Your task to perform on an android device: turn off javascript in the chrome app Image 0: 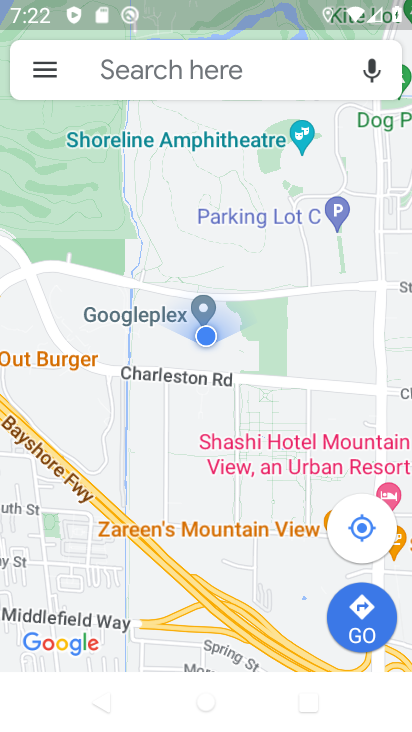
Step 0: press home button
Your task to perform on an android device: turn off javascript in the chrome app Image 1: 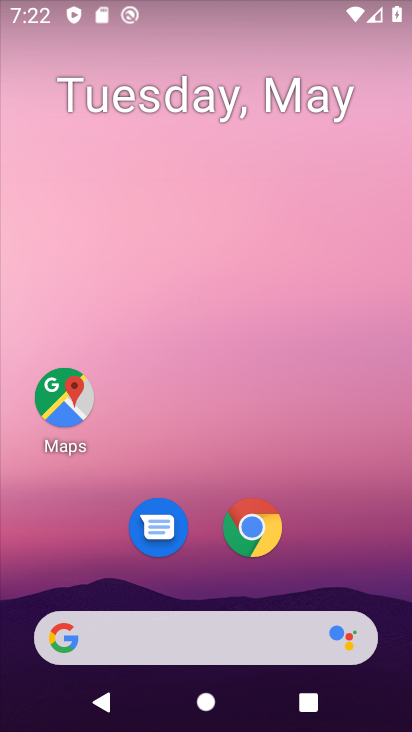
Step 1: click (254, 524)
Your task to perform on an android device: turn off javascript in the chrome app Image 2: 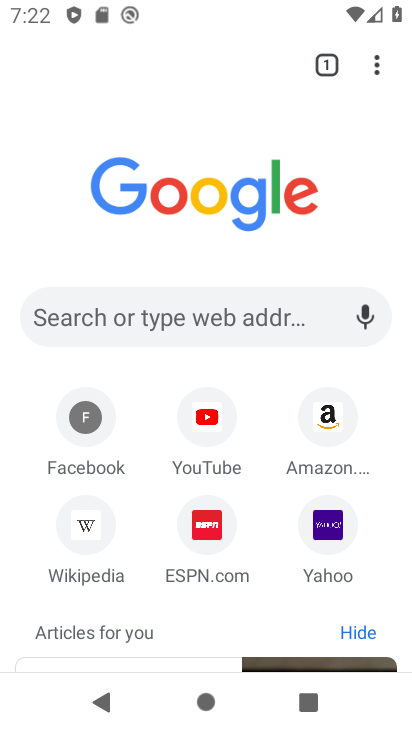
Step 2: click (380, 61)
Your task to perform on an android device: turn off javascript in the chrome app Image 3: 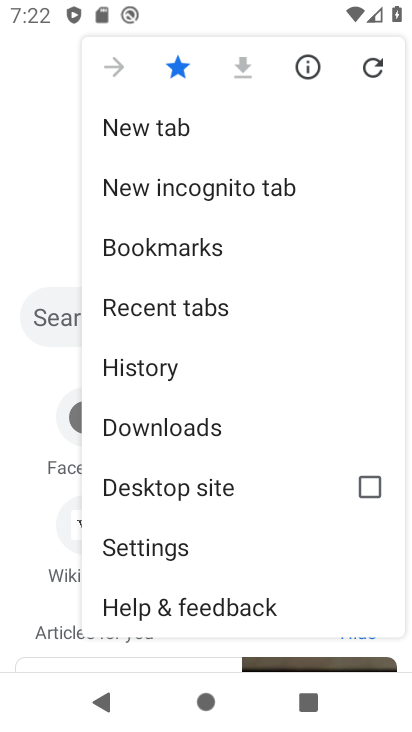
Step 3: click (170, 552)
Your task to perform on an android device: turn off javascript in the chrome app Image 4: 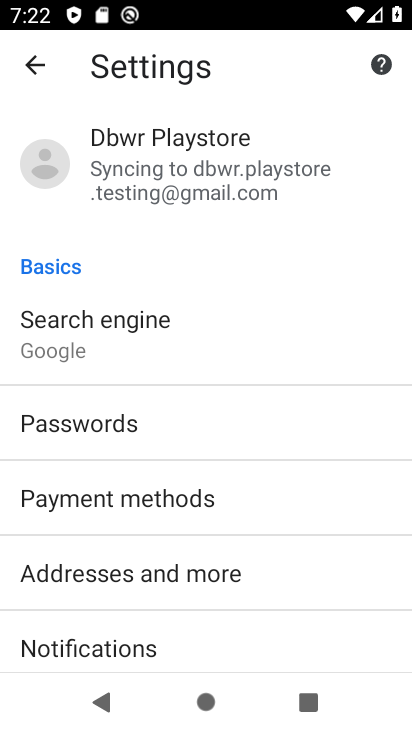
Step 4: drag from (103, 554) to (257, 327)
Your task to perform on an android device: turn off javascript in the chrome app Image 5: 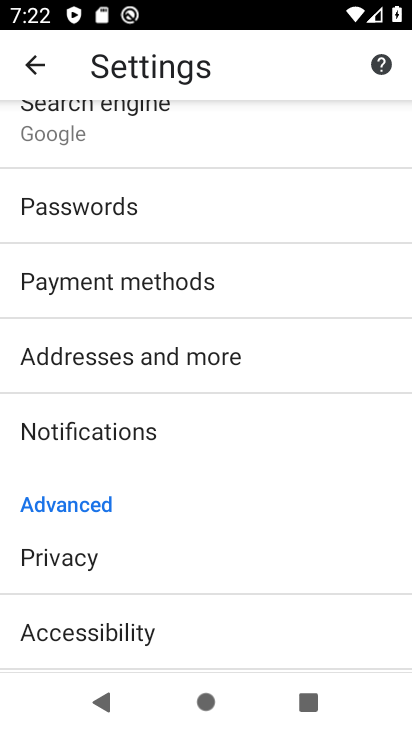
Step 5: drag from (145, 566) to (299, 327)
Your task to perform on an android device: turn off javascript in the chrome app Image 6: 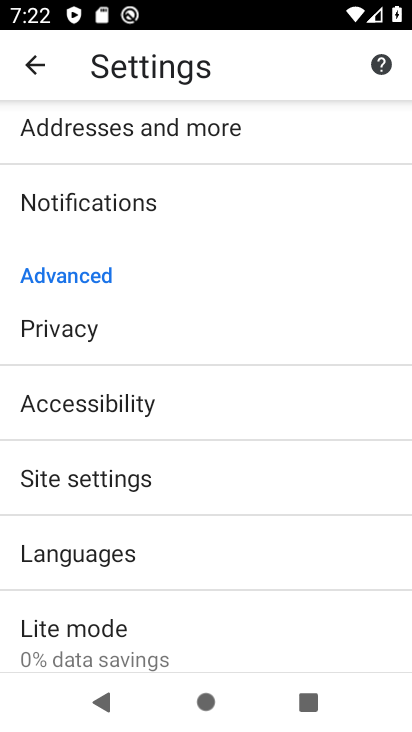
Step 6: click (100, 481)
Your task to perform on an android device: turn off javascript in the chrome app Image 7: 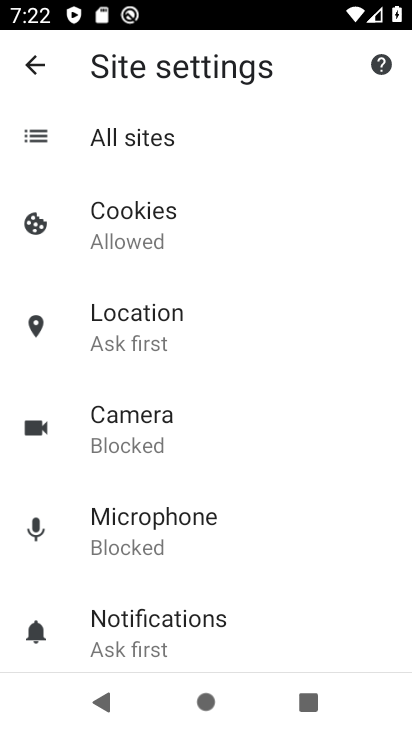
Step 7: drag from (191, 581) to (281, 391)
Your task to perform on an android device: turn off javascript in the chrome app Image 8: 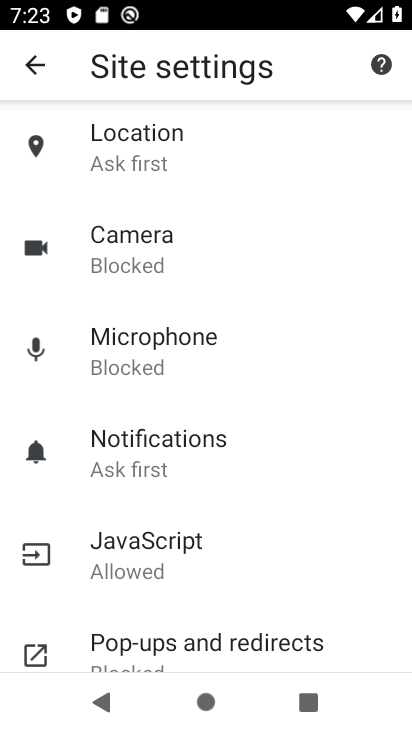
Step 8: click (161, 539)
Your task to perform on an android device: turn off javascript in the chrome app Image 9: 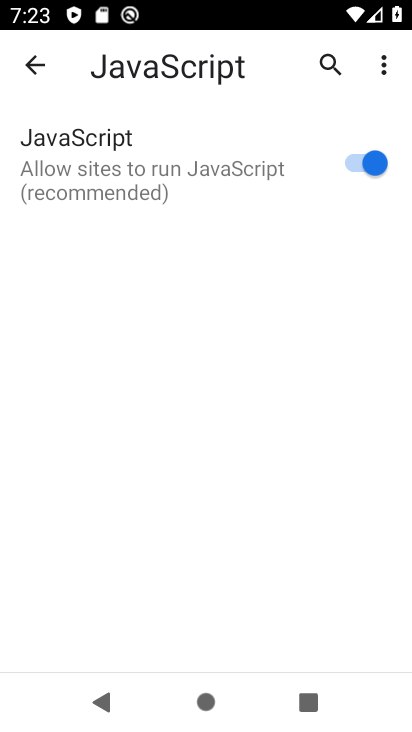
Step 9: click (351, 161)
Your task to perform on an android device: turn off javascript in the chrome app Image 10: 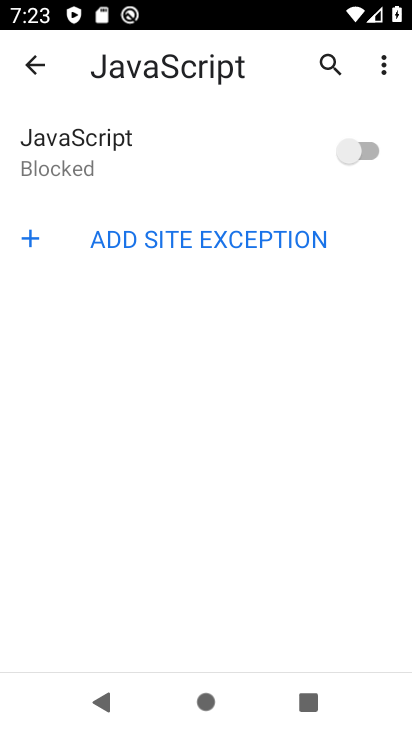
Step 10: task complete